Your task to perform on an android device: delete browsing data in the chrome app Image 0: 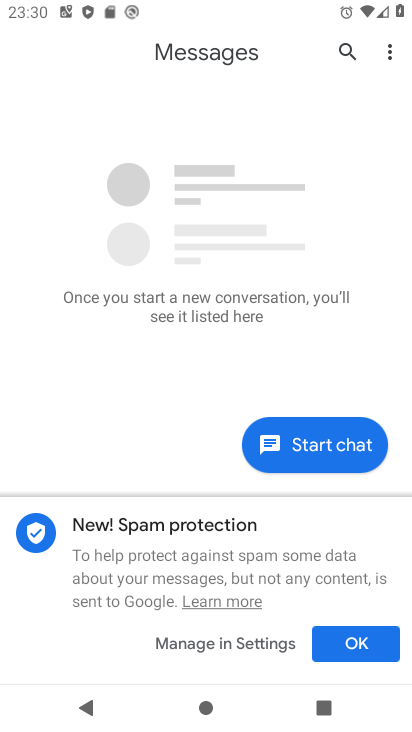
Step 0: press home button
Your task to perform on an android device: delete browsing data in the chrome app Image 1: 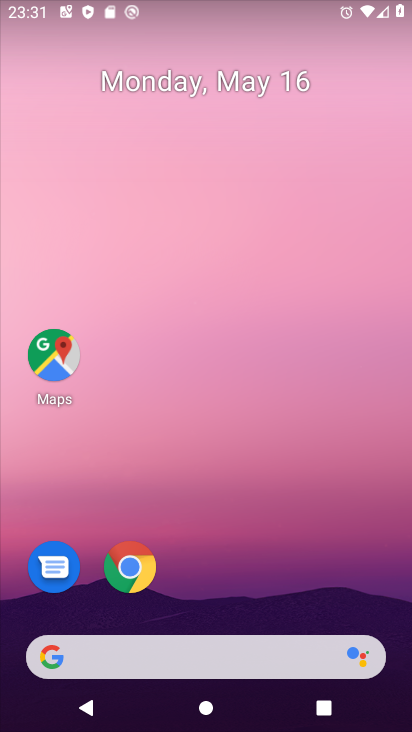
Step 1: click (125, 570)
Your task to perform on an android device: delete browsing data in the chrome app Image 2: 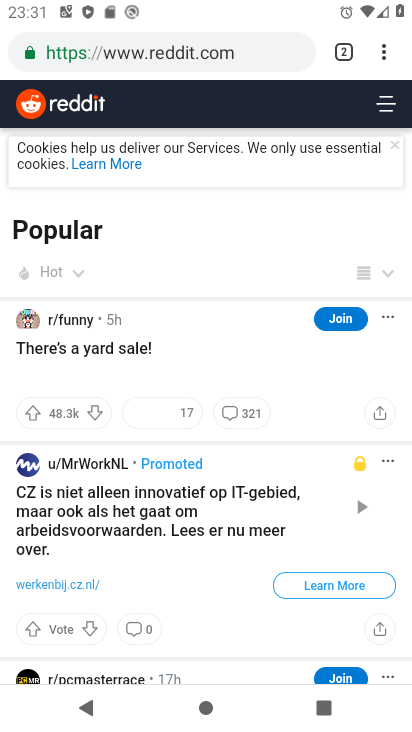
Step 2: click (384, 45)
Your task to perform on an android device: delete browsing data in the chrome app Image 3: 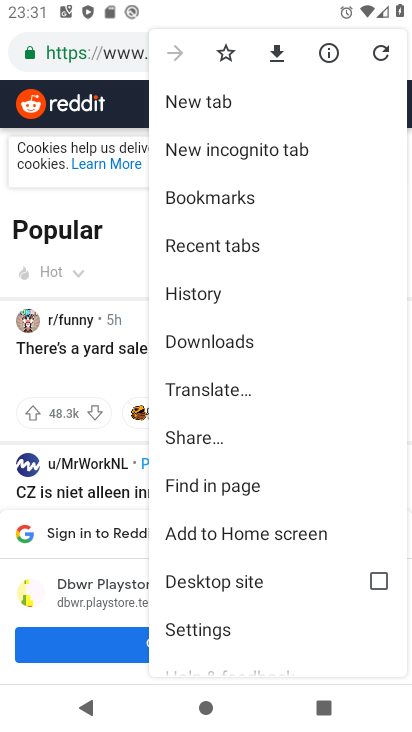
Step 3: click (196, 293)
Your task to perform on an android device: delete browsing data in the chrome app Image 4: 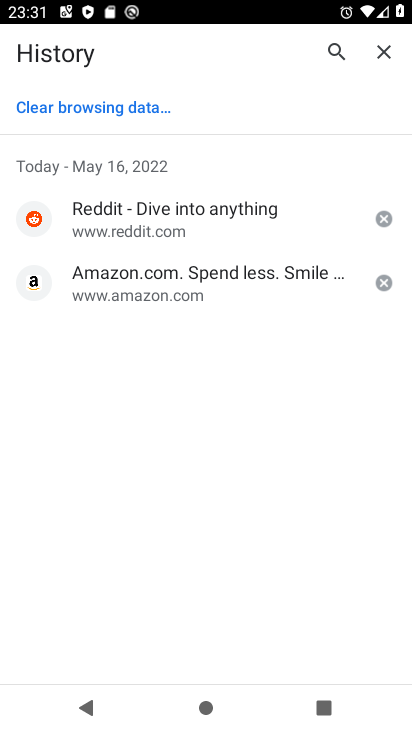
Step 4: click (92, 103)
Your task to perform on an android device: delete browsing data in the chrome app Image 5: 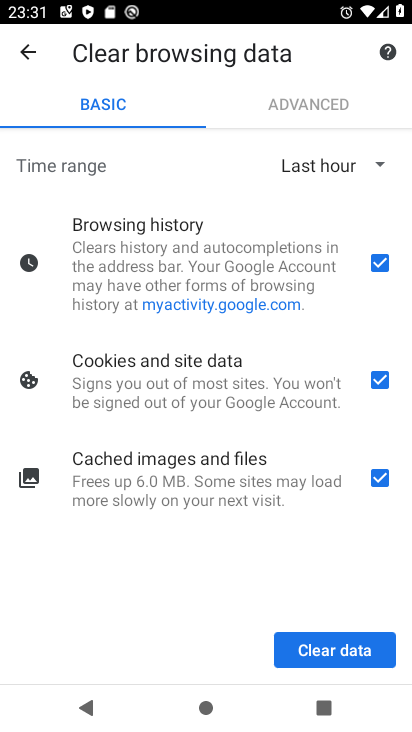
Step 5: click (338, 651)
Your task to perform on an android device: delete browsing data in the chrome app Image 6: 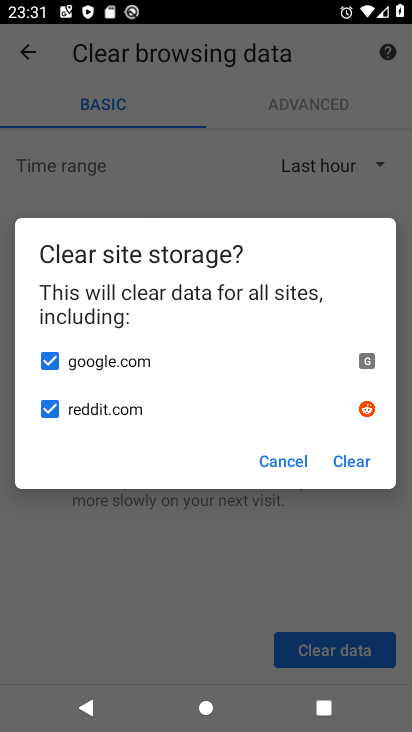
Step 6: click (333, 461)
Your task to perform on an android device: delete browsing data in the chrome app Image 7: 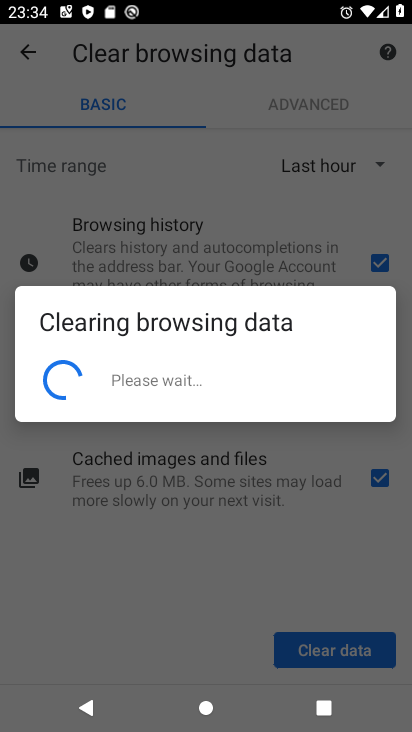
Step 7: task complete